Your task to perform on an android device: What's on my calendar tomorrow? Image 0: 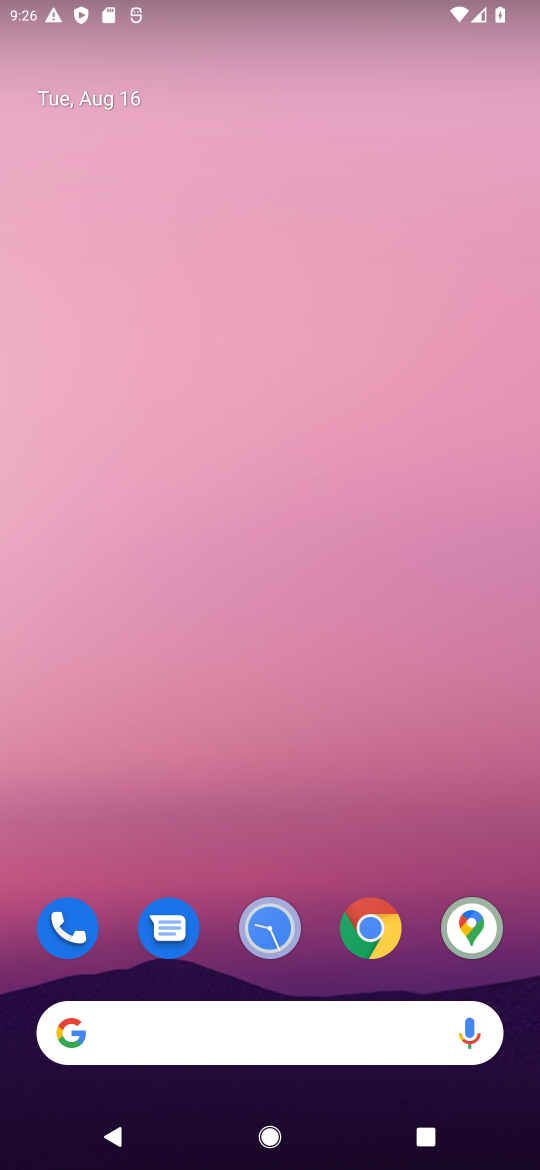
Step 0: press home button
Your task to perform on an android device: What's on my calendar tomorrow? Image 1: 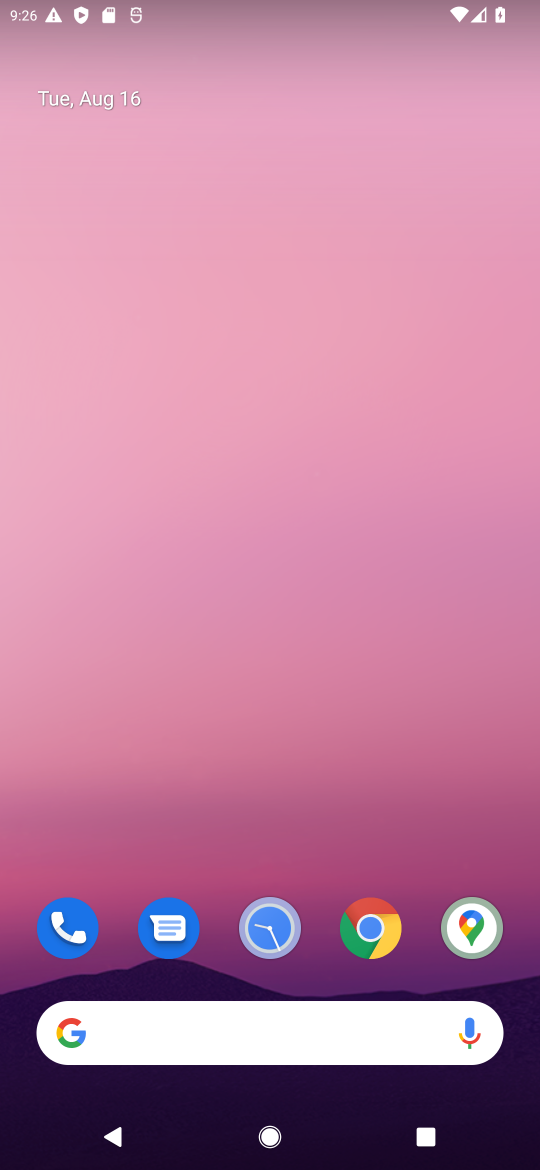
Step 1: drag from (251, 868) to (267, 146)
Your task to perform on an android device: What's on my calendar tomorrow? Image 2: 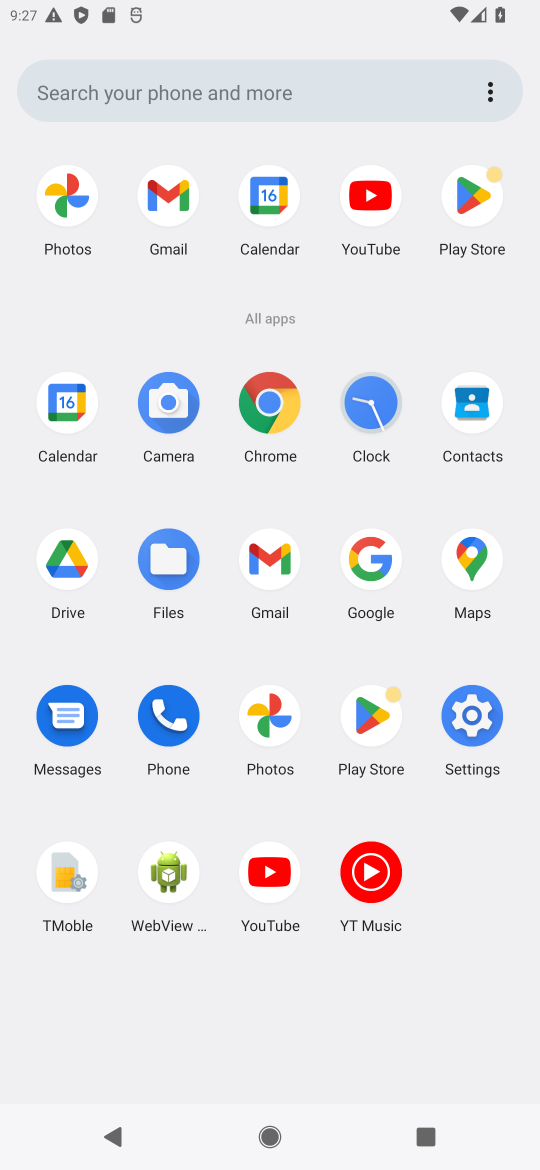
Step 2: click (79, 407)
Your task to perform on an android device: What's on my calendar tomorrow? Image 3: 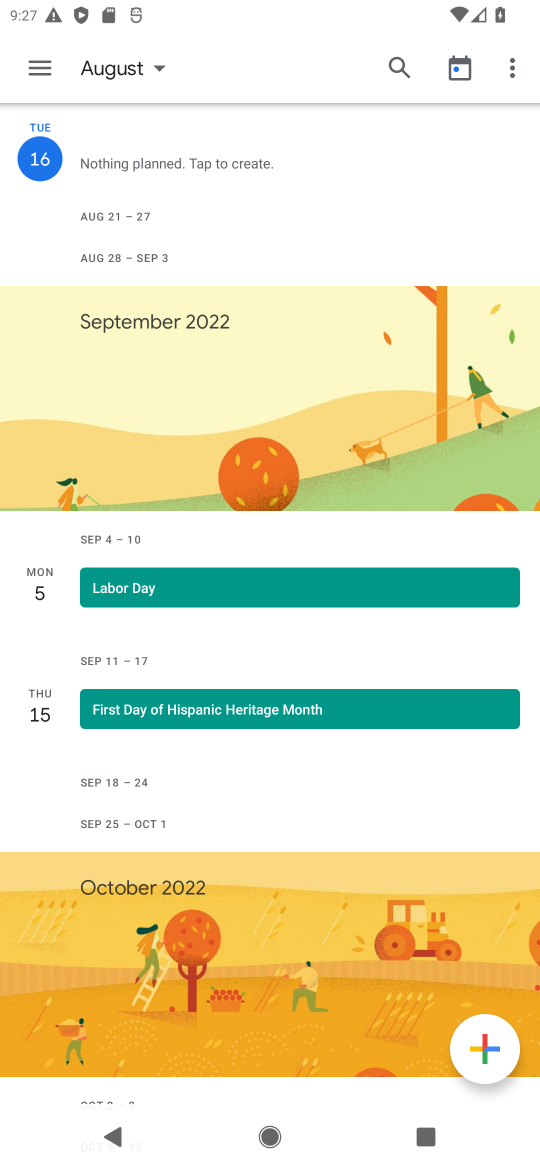
Step 3: click (48, 156)
Your task to perform on an android device: What's on my calendar tomorrow? Image 4: 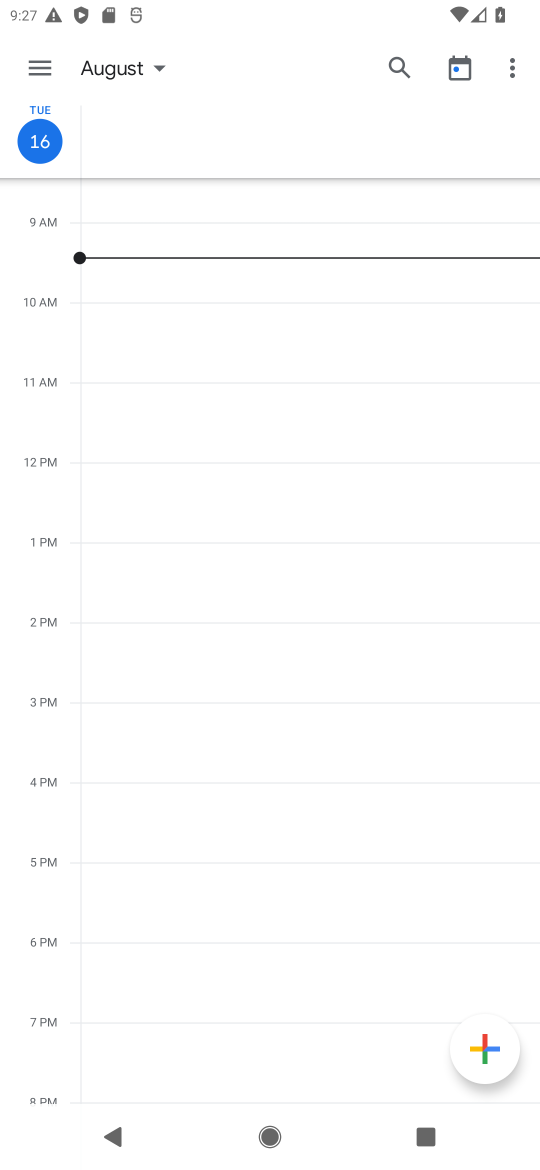
Step 4: drag from (434, 153) to (5, 148)
Your task to perform on an android device: What's on my calendar tomorrow? Image 5: 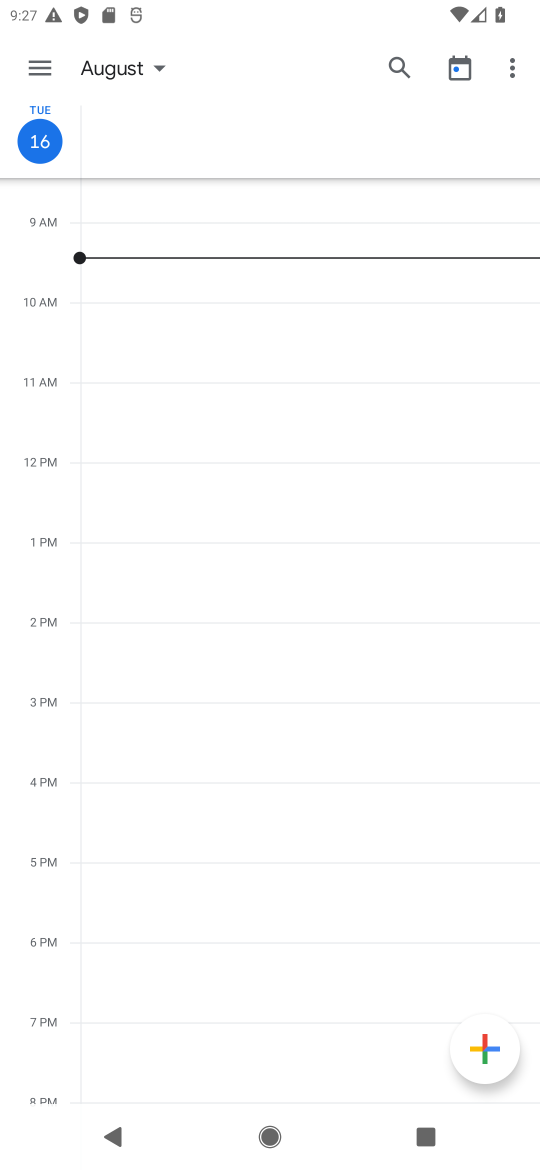
Step 5: drag from (480, 146) to (22, 157)
Your task to perform on an android device: What's on my calendar tomorrow? Image 6: 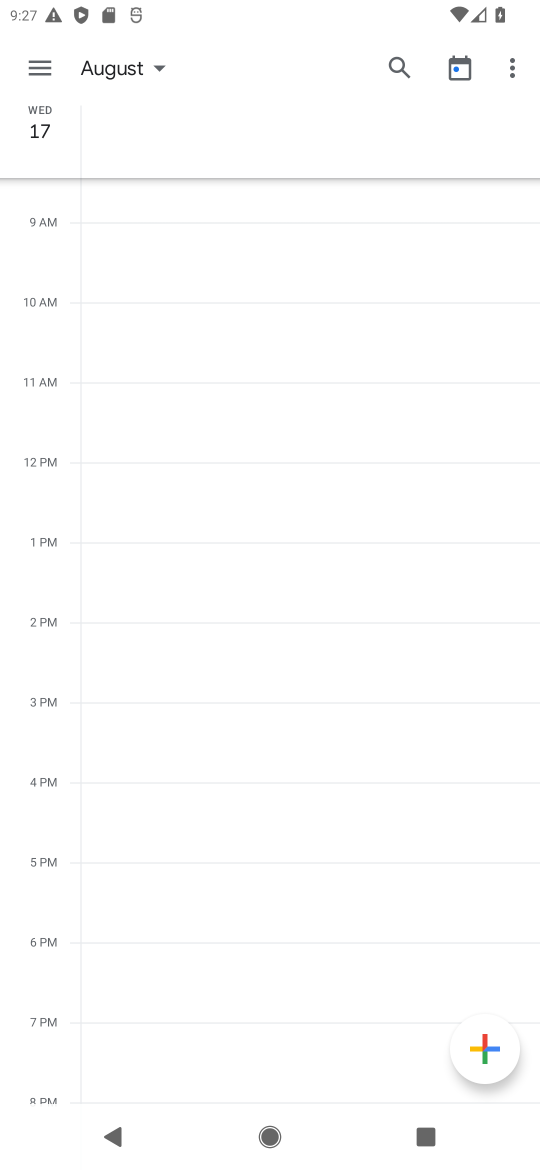
Step 6: click (448, 142)
Your task to perform on an android device: What's on my calendar tomorrow? Image 7: 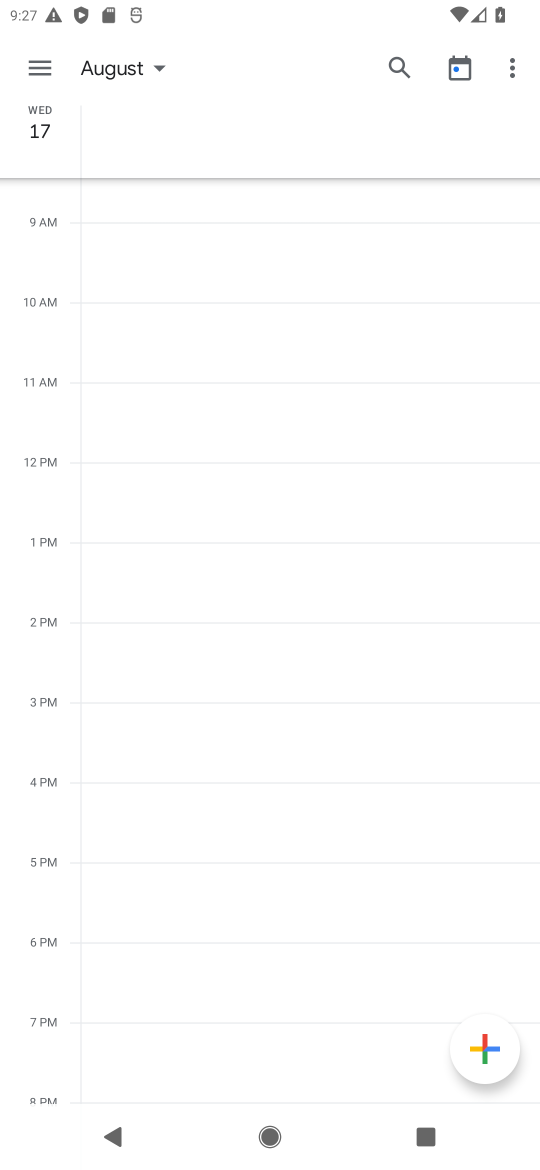
Step 7: task complete